Your task to perform on an android device: manage bookmarks in the chrome app Image 0: 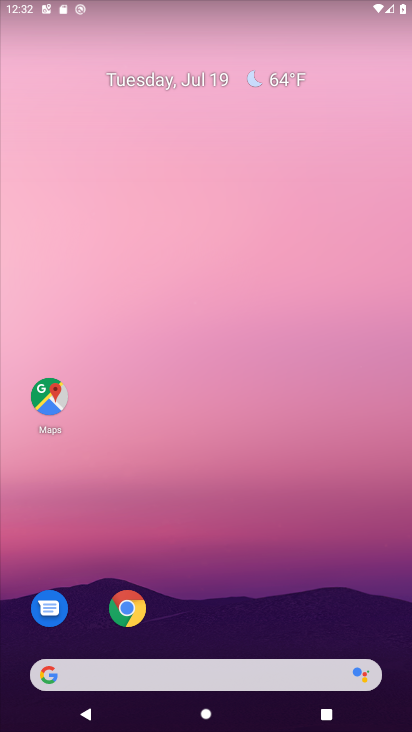
Step 0: drag from (244, 628) to (310, 145)
Your task to perform on an android device: manage bookmarks in the chrome app Image 1: 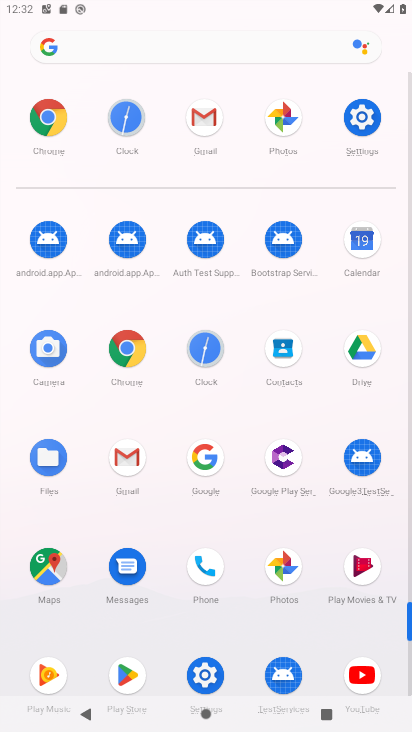
Step 1: click (135, 344)
Your task to perform on an android device: manage bookmarks in the chrome app Image 2: 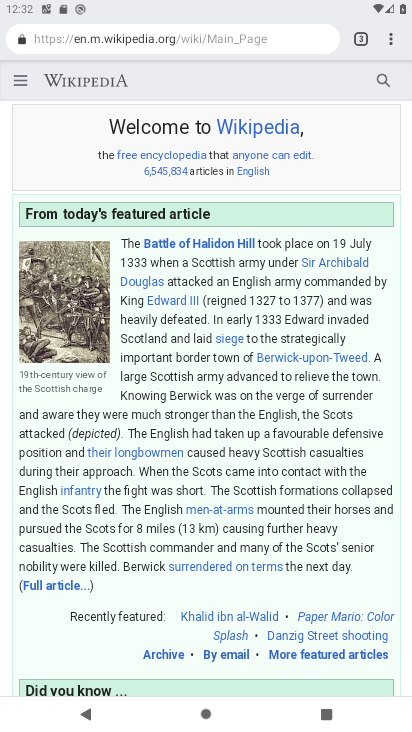
Step 2: click (397, 42)
Your task to perform on an android device: manage bookmarks in the chrome app Image 3: 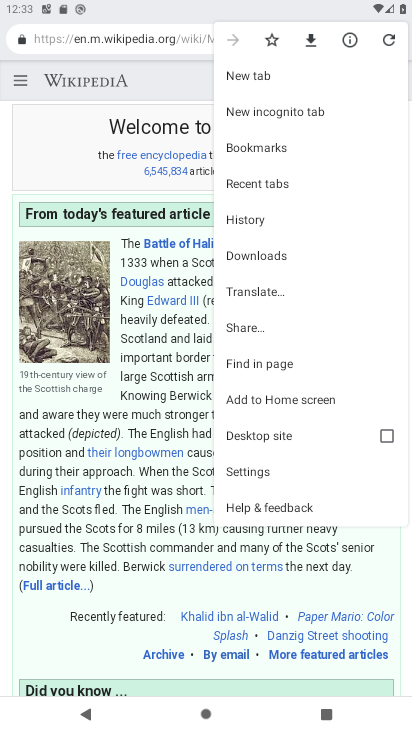
Step 3: click (292, 153)
Your task to perform on an android device: manage bookmarks in the chrome app Image 4: 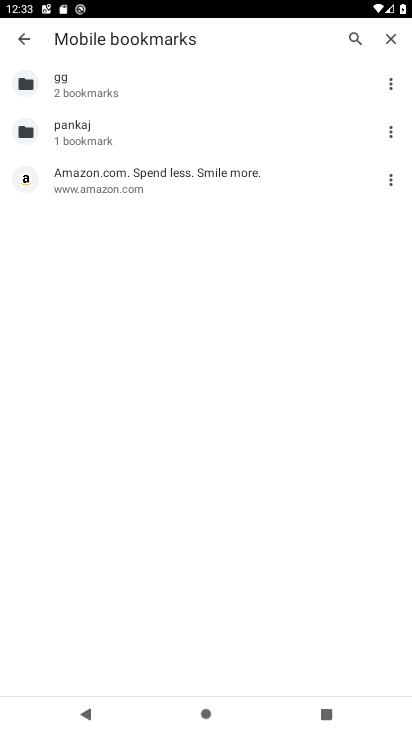
Step 4: task complete